Your task to perform on an android device: turn on the 24-hour format for clock Image 0: 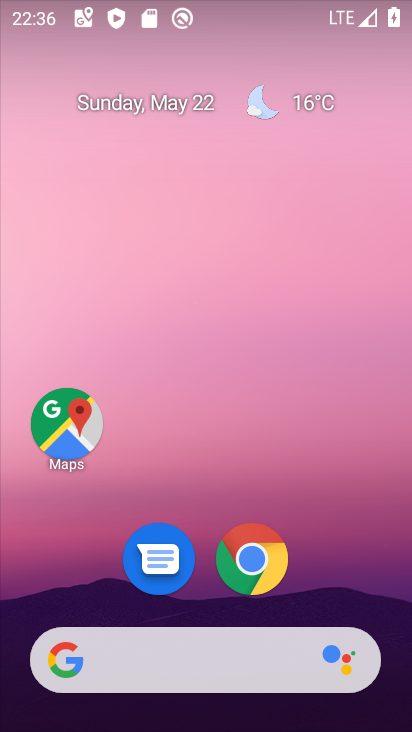
Step 0: drag from (192, 703) to (184, 308)
Your task to perform on an android device: turn on the 24-hour format for clock Image 1: 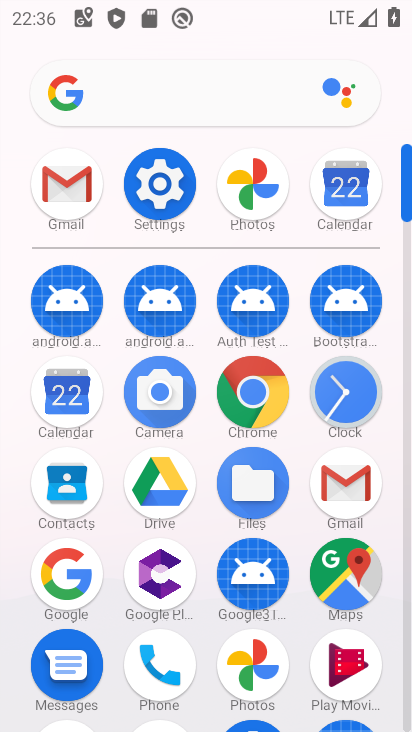
Step 1: click (360, 413)
Your task to perform on an android device: turn on the 24-hour format for clock Image 2: 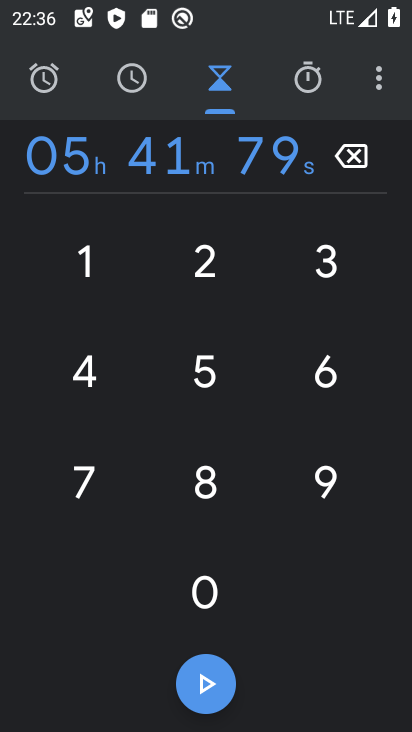
Step 2: click (375, 98)
Your task to perform on an android device: turn on the 24-hour format for clock Image 3: 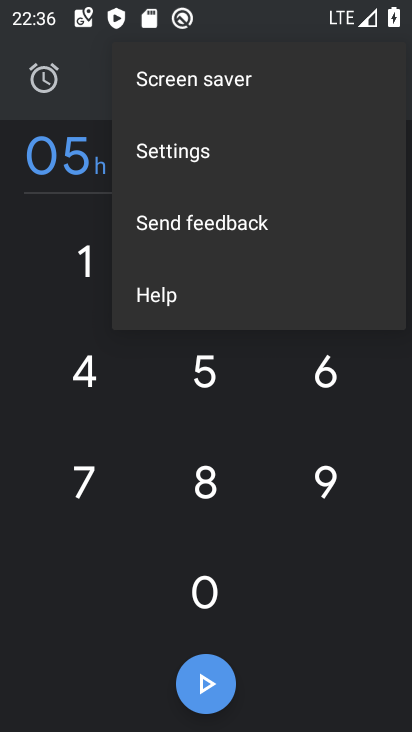
Step 3: click (224, 166)
Your task to perform on an android device: turn on the 24-hour format for clock Image 4: 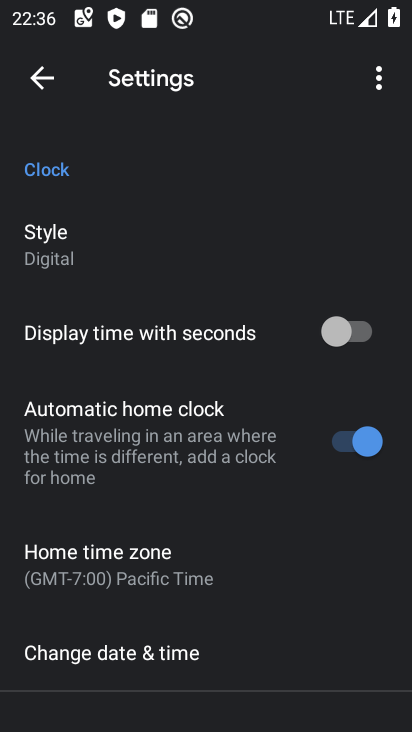
Step 4: click (140, 660)
Your task to perform on an android device: turn on the 24-hour format for clock Image 5: 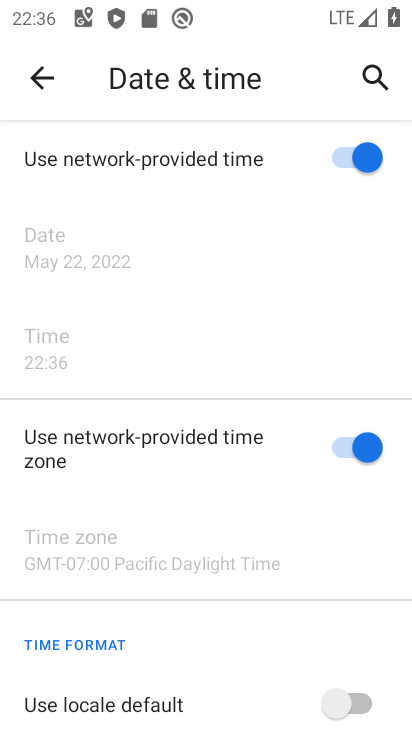
Step 5: drag from (135, 662) to (206, 376)
Your task to perform on an android device: turn on the 24-hour format for clock Image 6: 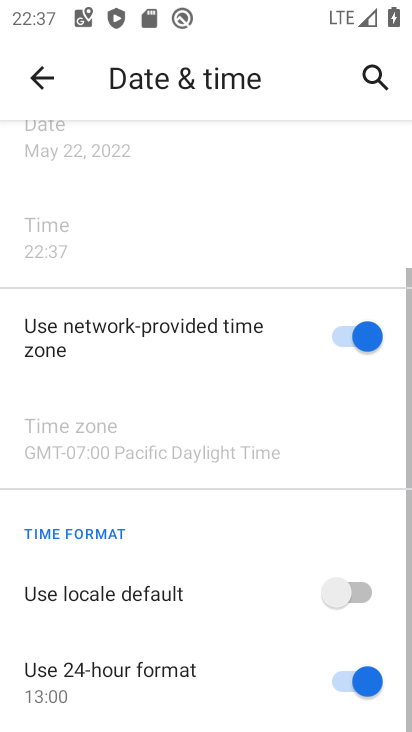
Step 6: click (349, 601)
Your task to perform on an android device: turn on the 24-hour format for clock Image 7: 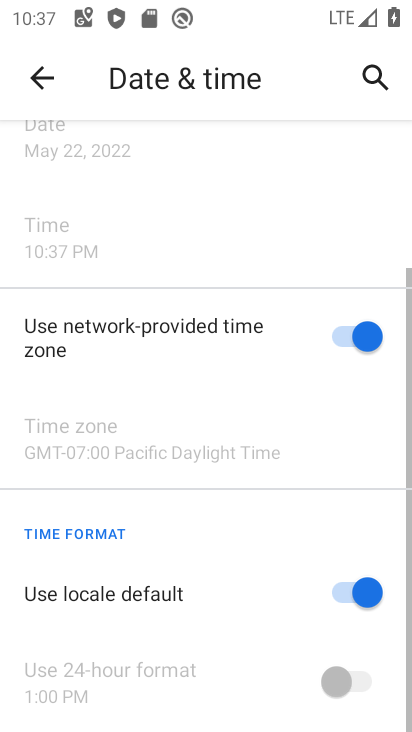
Step 7: click (361, 596)
Your task to perform on an android device: turn on the 24-hour format for clock Image 8: 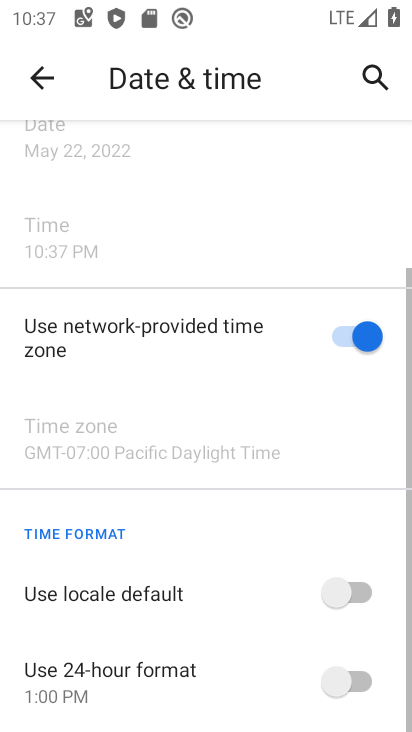
Step 8: click (365, 677)
Your task to perform on an android device: turn on the 24-hour format for clock Image 9: 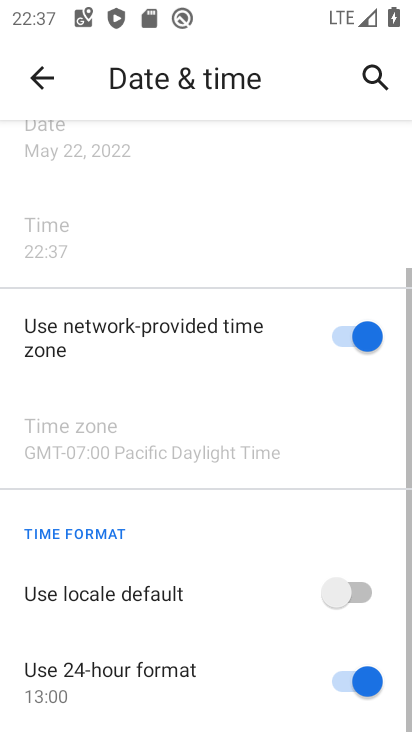
Step 9: task complete